Your task to perform on an android device: Check the weather Image 0: 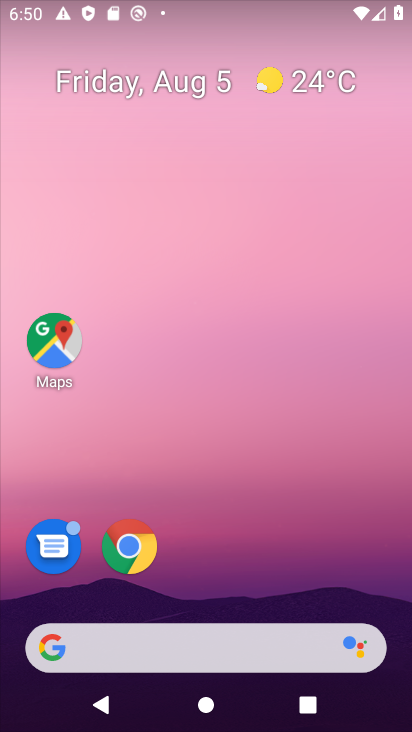
Step 0: drag from (197, 420) to (229, 213)
Your task to perform on an android device: Check the weather Image 1: 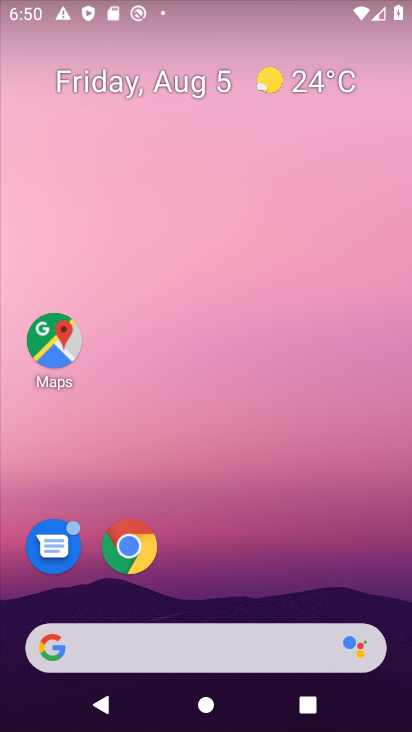
Step 1: drag from (197, 542) to (258, 89)
Your task to perform on an android device: Check the weather Image 2: 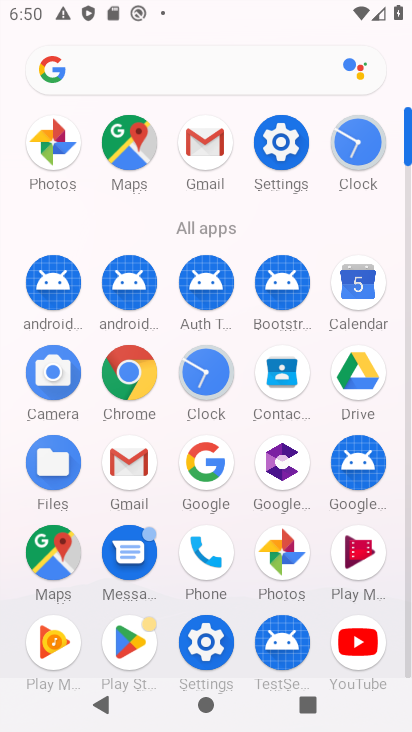
Step 2: click (190, 76)
Your task to perform on an android device: Check the weather Image 3: 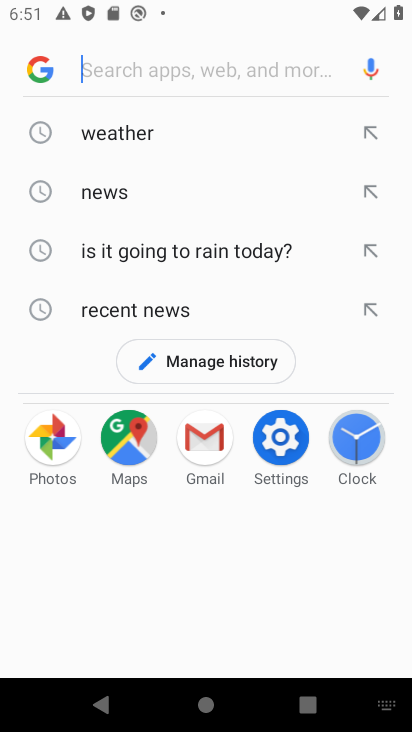
Step 3: click (154, 140)
Your task to perform on an android device: Check the weather Image 4: 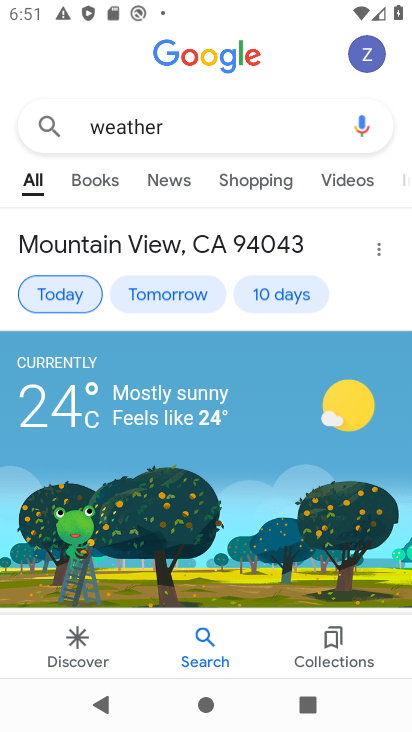
Step 4: task complete